Your task to perform on an android device: turn off location Image 0: 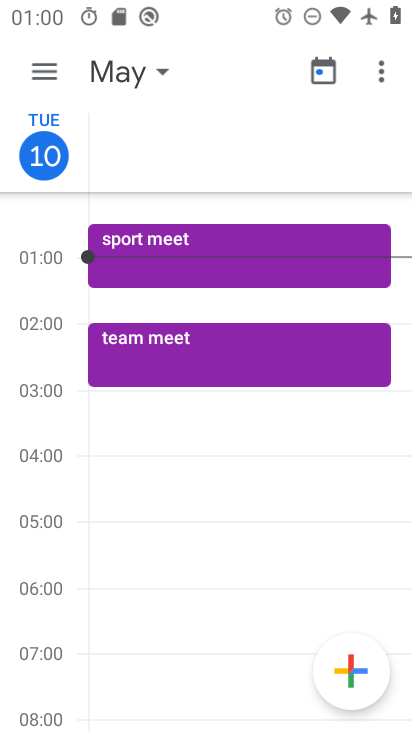
Step 0: press home button
Your task to perform on an android device: turn off location Image 1: 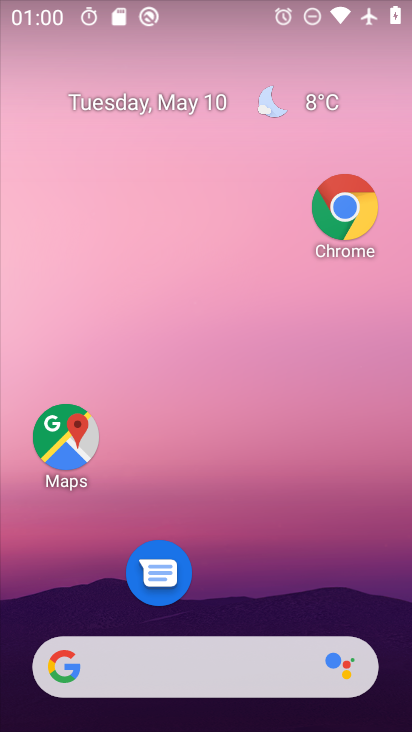
Step 1: drag from (346, 589) to (302, 188)
Your task to perform on an android device: turn off location Image 2: 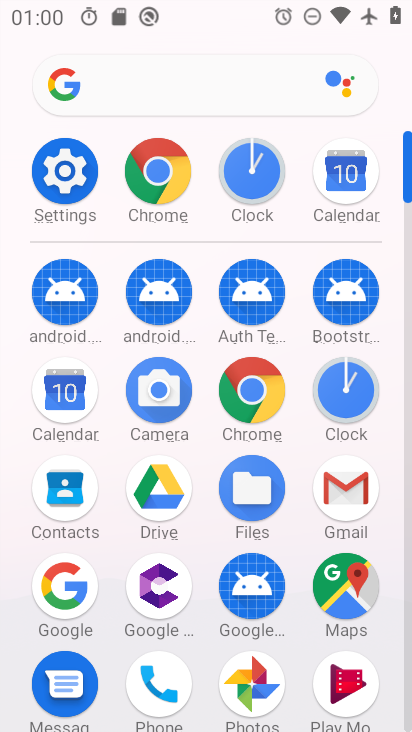
Step 2: click (78, 180)
Your task to perform on an android device: turn off location Image 3: 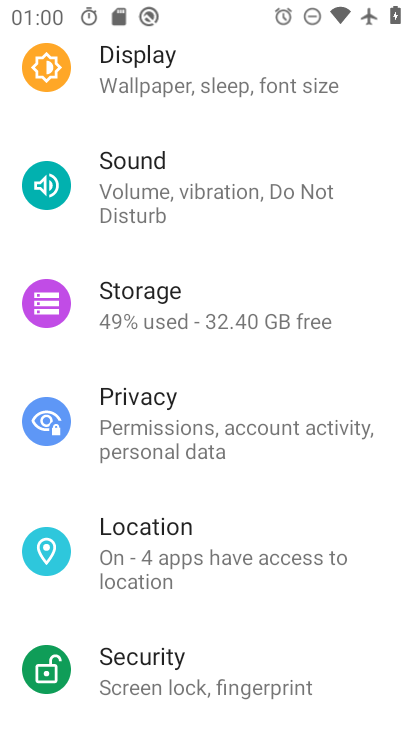
Step 3: click (268, 555)
Your task to perform on an android device: turn off location Image 4: 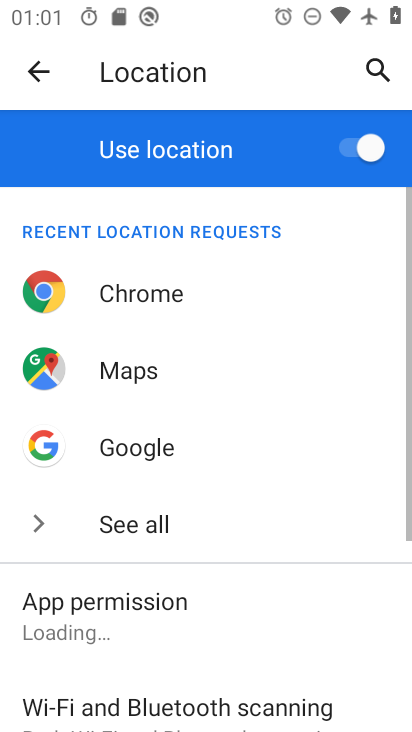
Step 4: click (330, 158)
Your task to perform on an android device: turn off location Image 5: 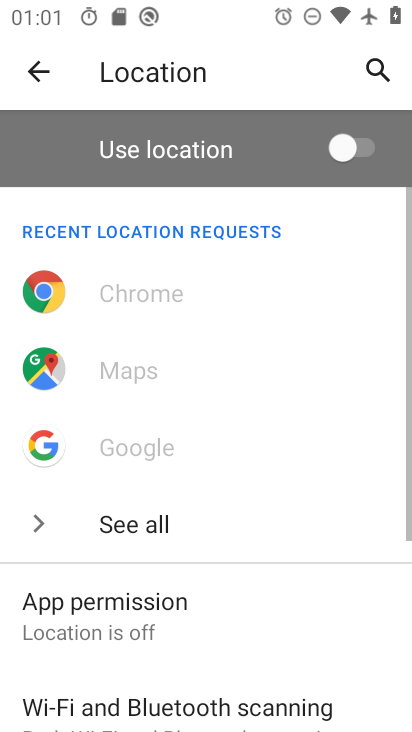
Step 5: task complete